Your task to perform on an android device: Open Wikipedia Image 0: 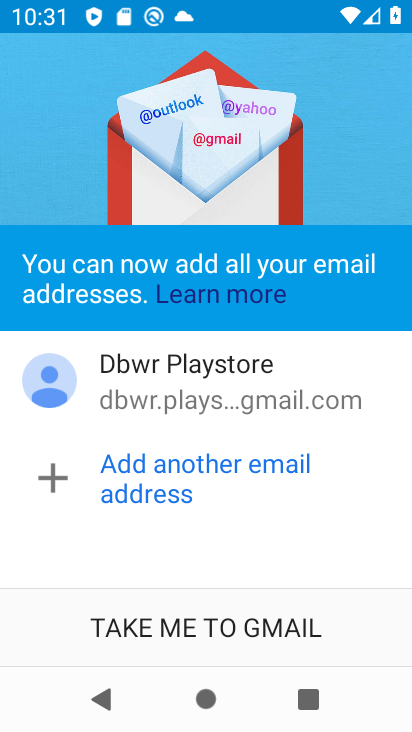
Step 0: press home button
Your task to perform on an android device: Open Wikipedia Image 1: 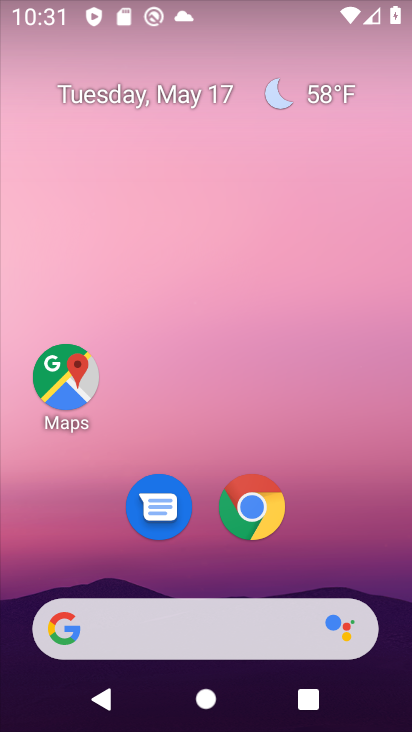
Step 1: drag from (334, 507) to (232, 153)
Your task to perform on an android device: Open Wikipedia Image 2: 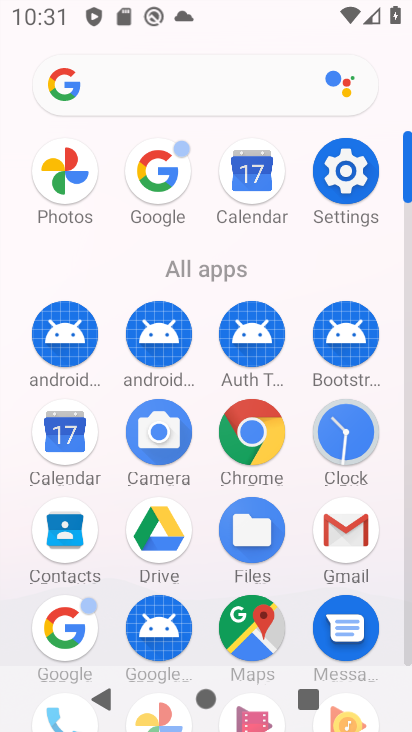
Step 2: click (241, 431)
Your task to perform on an android device: Open Wikipedia Image 3: 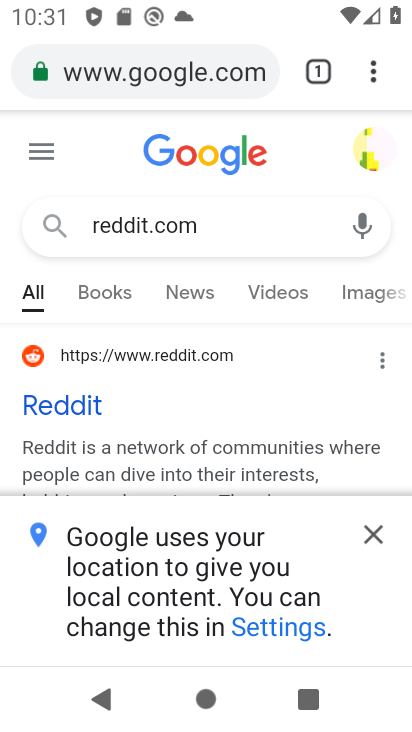
Step 3: click (371, 74)
Your task to perform on an android device: Open Wikipedia Image 4: 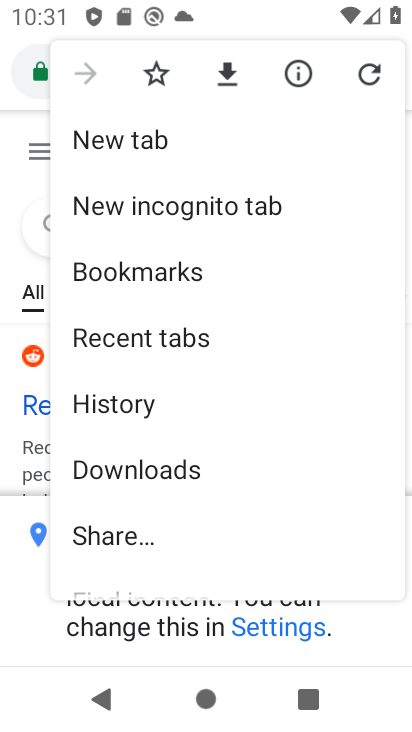
Step 4: click (113, 143)
Your task to perform on an android device: Open Wikipedia Image 5: 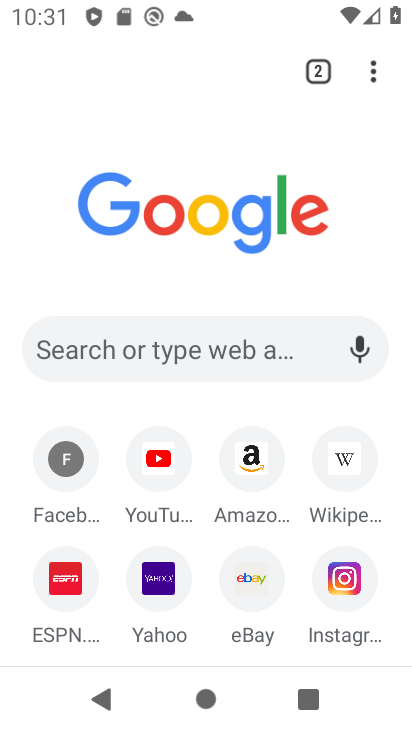
Step 5: click (345, 451)
Your task to perform on an android device: Open Wikipedia Image 6: 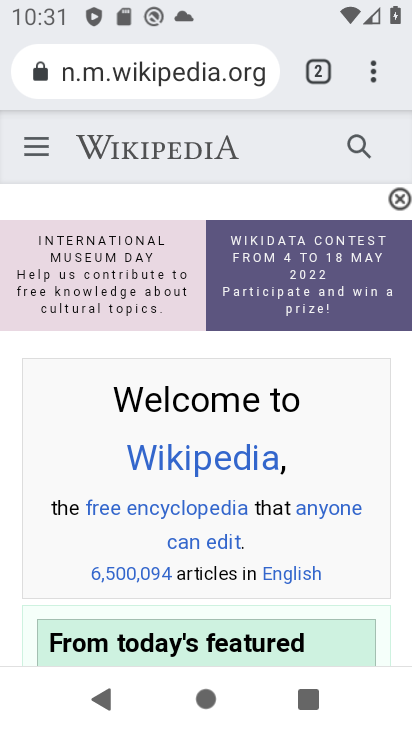
Step 6: task complete